Your task to perform on an android device: Go to Android settings Image 0: 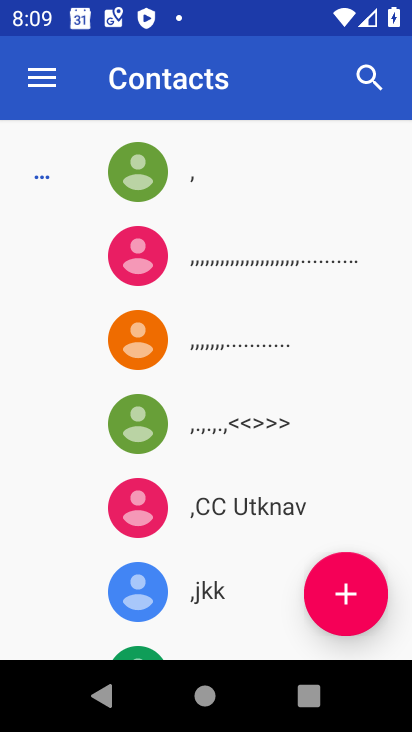
Step 0: press back button
Your task to perform on an android device: Go to Android settings Image 1: 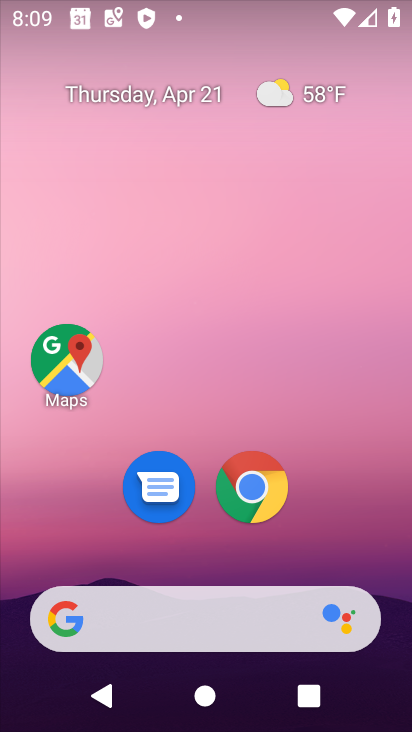
Step 1: drag from (365, 519) to (291, 4)
Your task to perform on an android device: Go to Android settings Image 2: 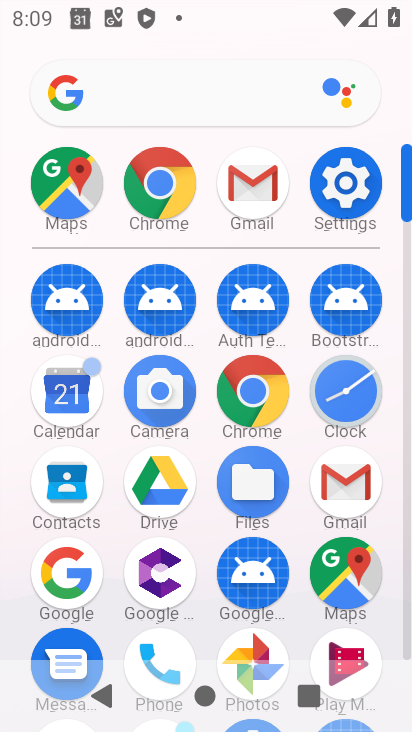
Step 2: drag from (4, 540) to (8, 228)
Your task to perform on an android device: Go to Android settings Image 3: 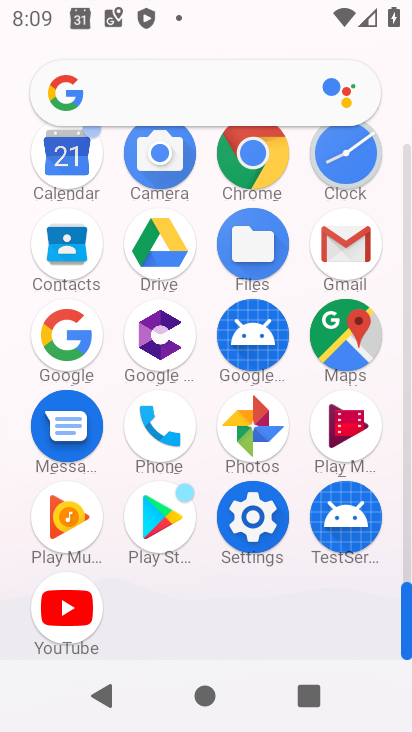
Step 3: click (253, 515)
Your task to perform on an android device: Go to Android settings Image 4: 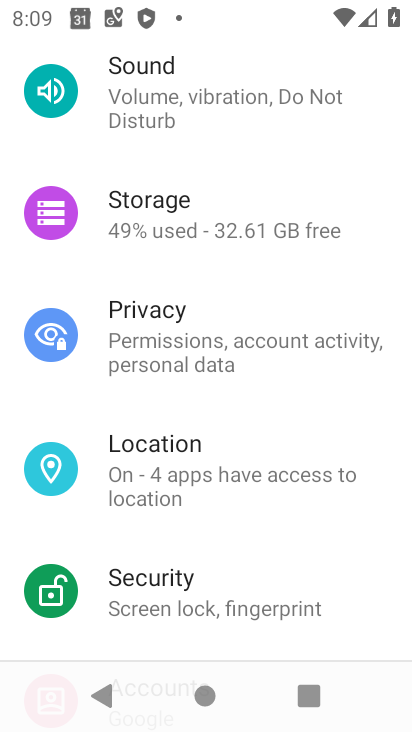
Step 4: task complete